Your task to perform on an android device: turn on javascript in the chrome app Image 0: 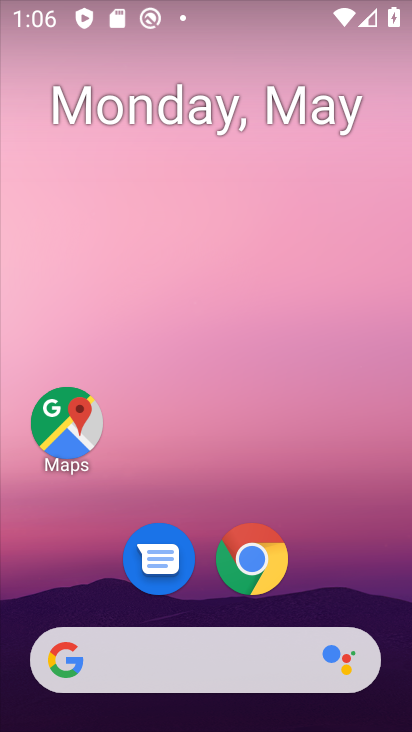
Step 0: click (241, 568)
Your task to perform on an android device: turn on javascript in the chrome app Image 1: 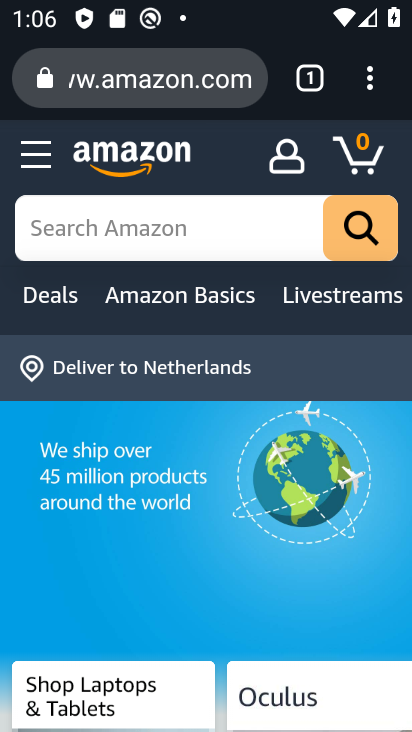
Step 1: click (376, 75)
Your task to perform on an android device: turn on javascript in the chrome app Image 2: 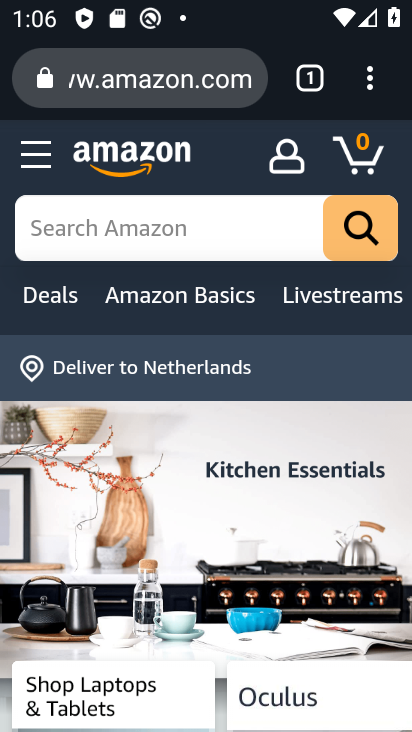
Step 2: click (376, 75)
Your task to perform on an android device: turn on javascript in the chrome app Image 3: 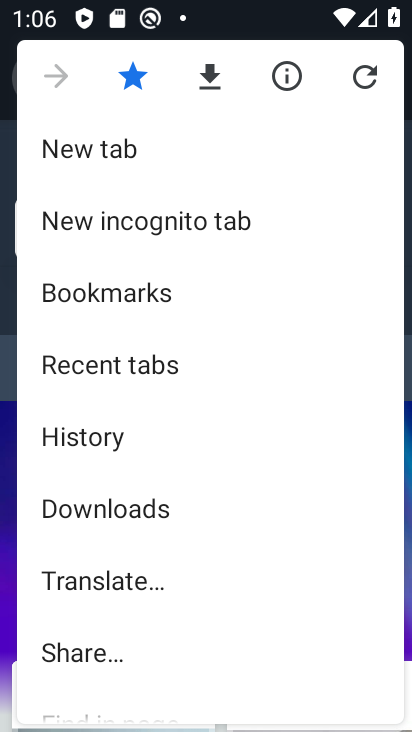
Step 3: drag from (186, 672) to (235, 176)
Your task to perform on an android device: turn on javascript in the chrome app Image 4: 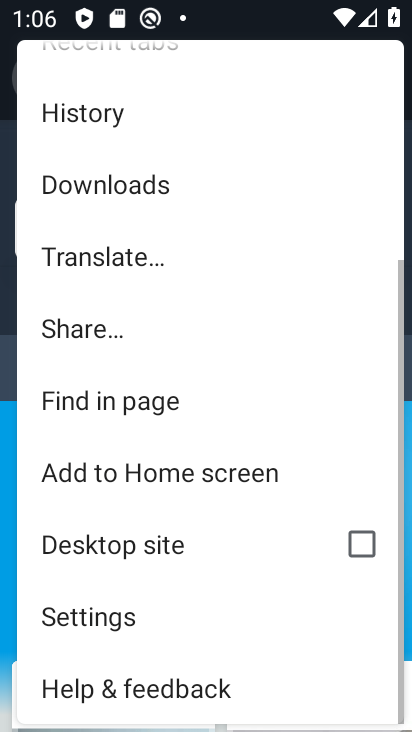
Step 4: click (84, 619)
Your task to perform on an android device: turn on javascript in the chrome app Image 5: 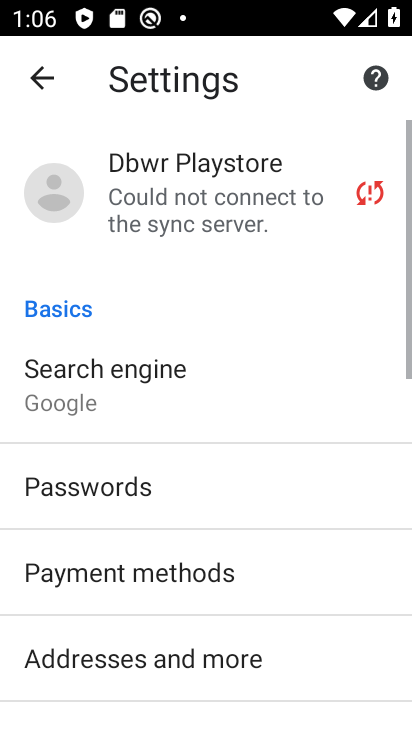
Step 5: drag from (150, 702) to (164, 123)
Your task to perform on an android device: turn on javascript in the chrome app Image 6: 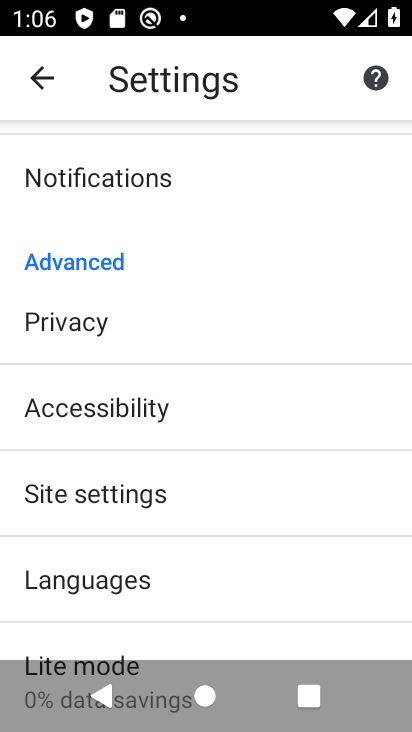
Step 6: click (72, 500)
Your task to perform on an android device: turn on javascript in the chrome app Image 7: 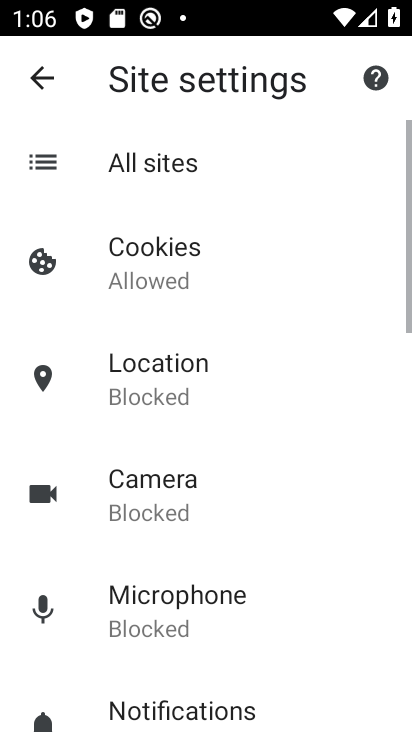
Step 7: drag from (189, 705) to (186, 219)
Your task to perform on an android device: turn on javascript in the chrome app Image 8: 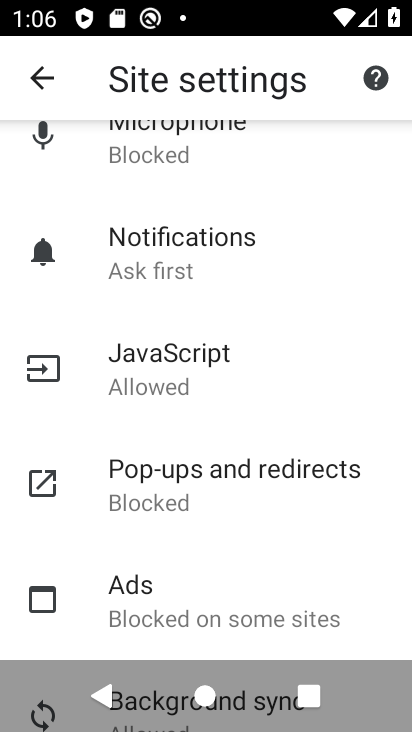
Step 8: click (202, 365)
Your task to perform on an android device: turn on javascript in the chrome app Image 9: 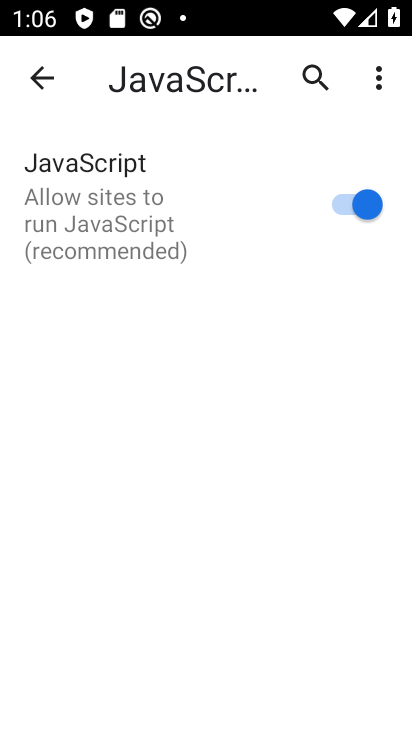
Step 9: task complete